Your task to perform on an android device: Search for vegetarian restaurants on Maps Image 0: 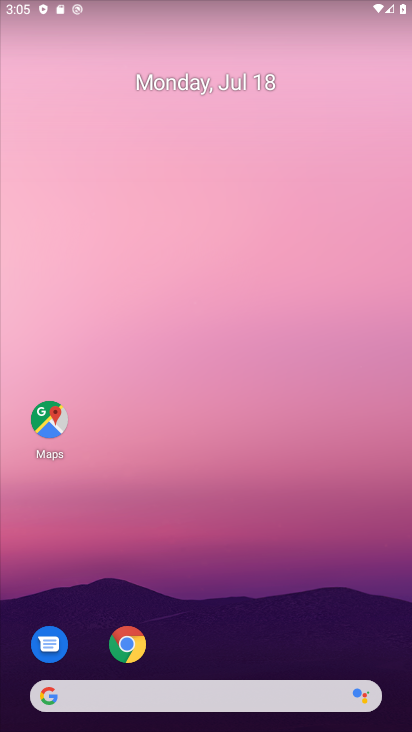
Step 0: click (49, 422)
Your task to perform on an android device: Search for vegetarian restaurants on Maps Image 1: 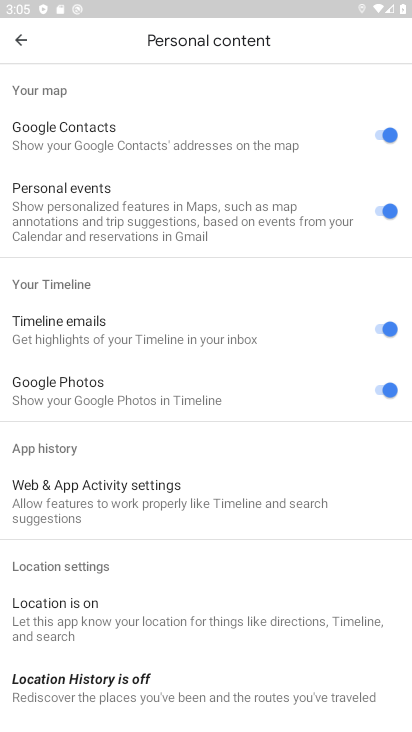
Step 1: press back button
Your task to perform on an android device: Search for vegetarian restaurants on Maps Image 2: 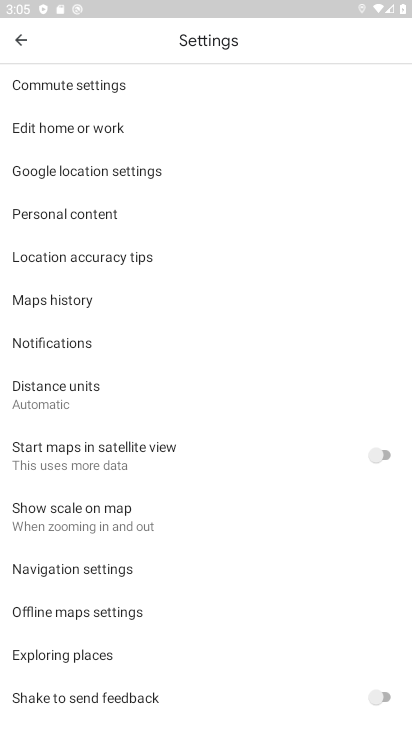
Step 2: press back button
Your task to perform on an android device: Search for vegetarian restaurants on Maps Image 3: 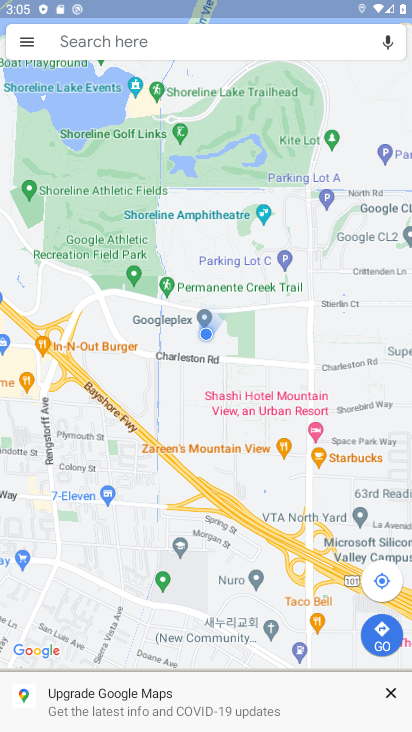
Step 3: click (101, 36)
Your task to perform on an android device: Search for vegetarian restaurants on Maps Image 4: 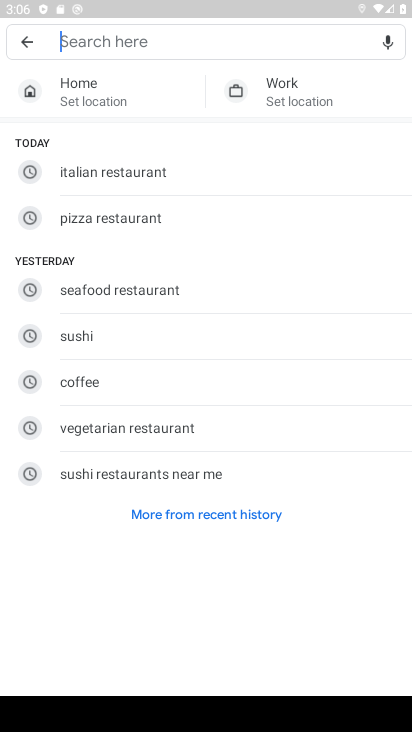
Step 4: type "vegetarian restaurants"
Your task to perform on an android device: Search for vegetarian restaurants on Maps Image 5: 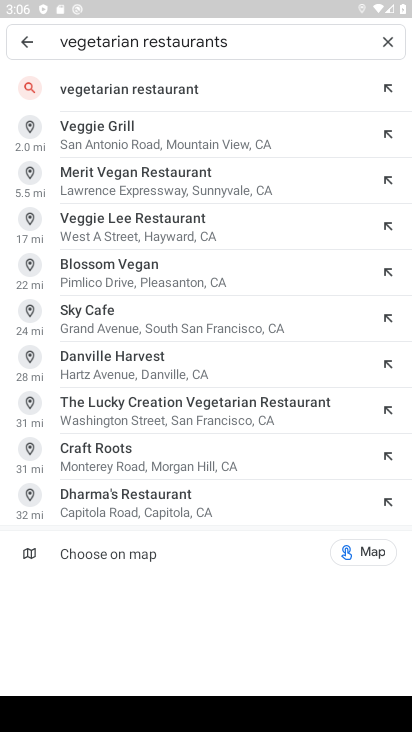
Step 5: click (118, 87)
Your task to perform on an android device: Search for vegetarian restaurants on Maps Image 6: 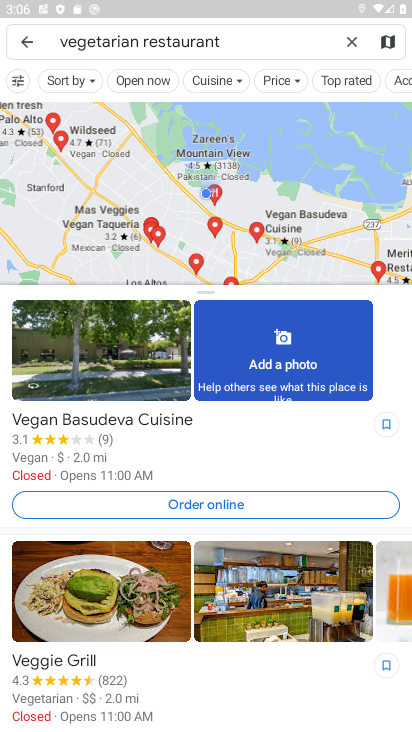
Step 6: task complete